Your task to perform on an android device: change keyboard looks Image 0: 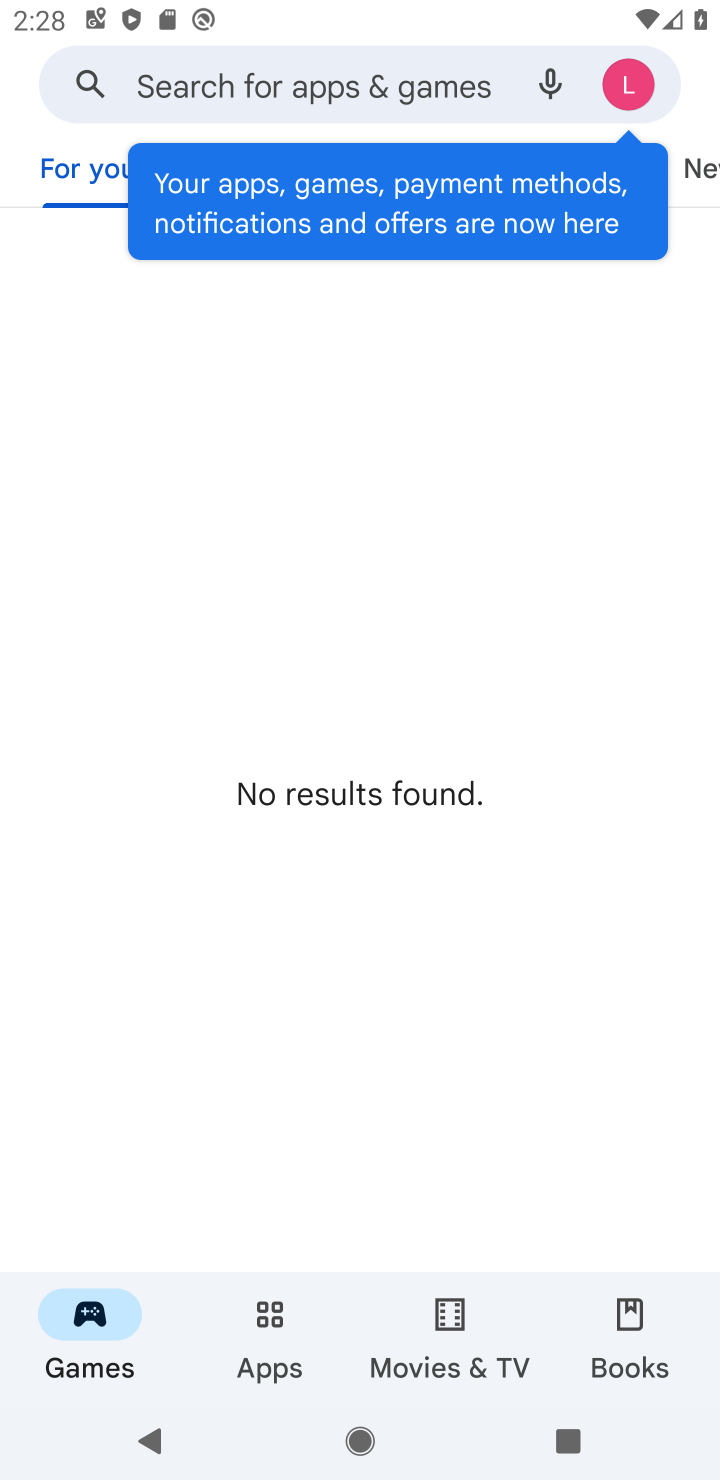
Step 0: press home button
Your task to perform on an android device: change keyboard looks Image 1: 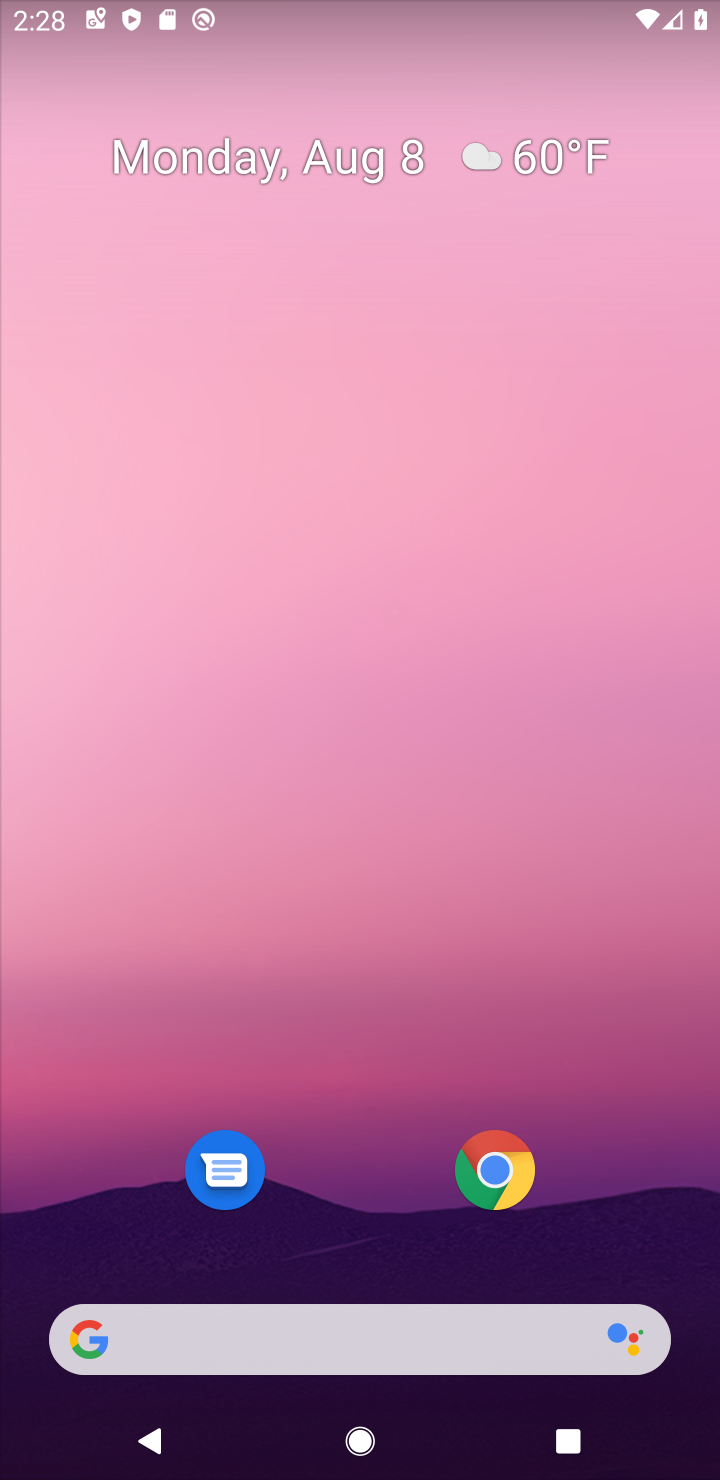
Step 1: drag from (374, 816) to (417, 476)
Your task to perform on an android device: change keyboard looks Image 2: 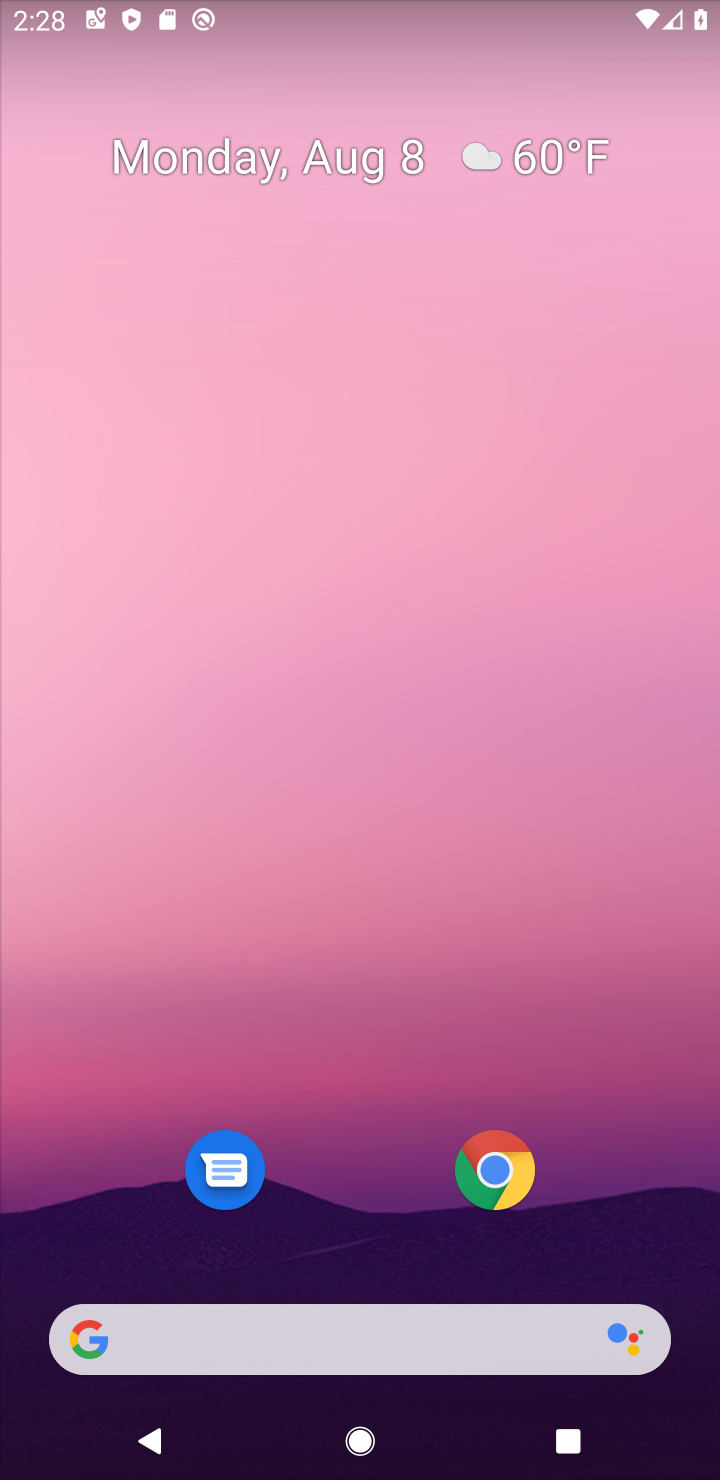
Step 2: drag from (357, 1003) to (382, 481)
Your task to perform on an android device: change keyboard looks Image 3: 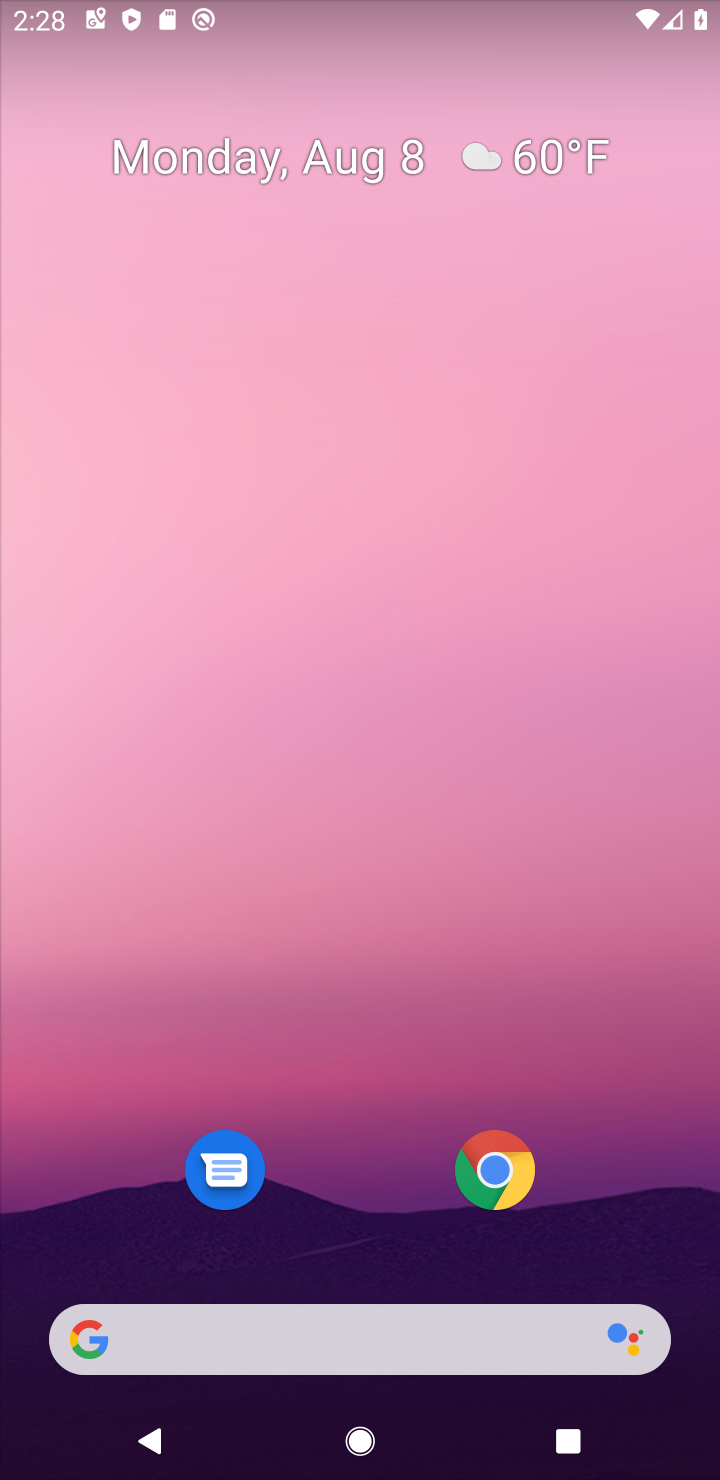
Step 3: drag from (348, 942) to (407, 182)
Your task to perform on an android device: change keyboard looks Image 4: 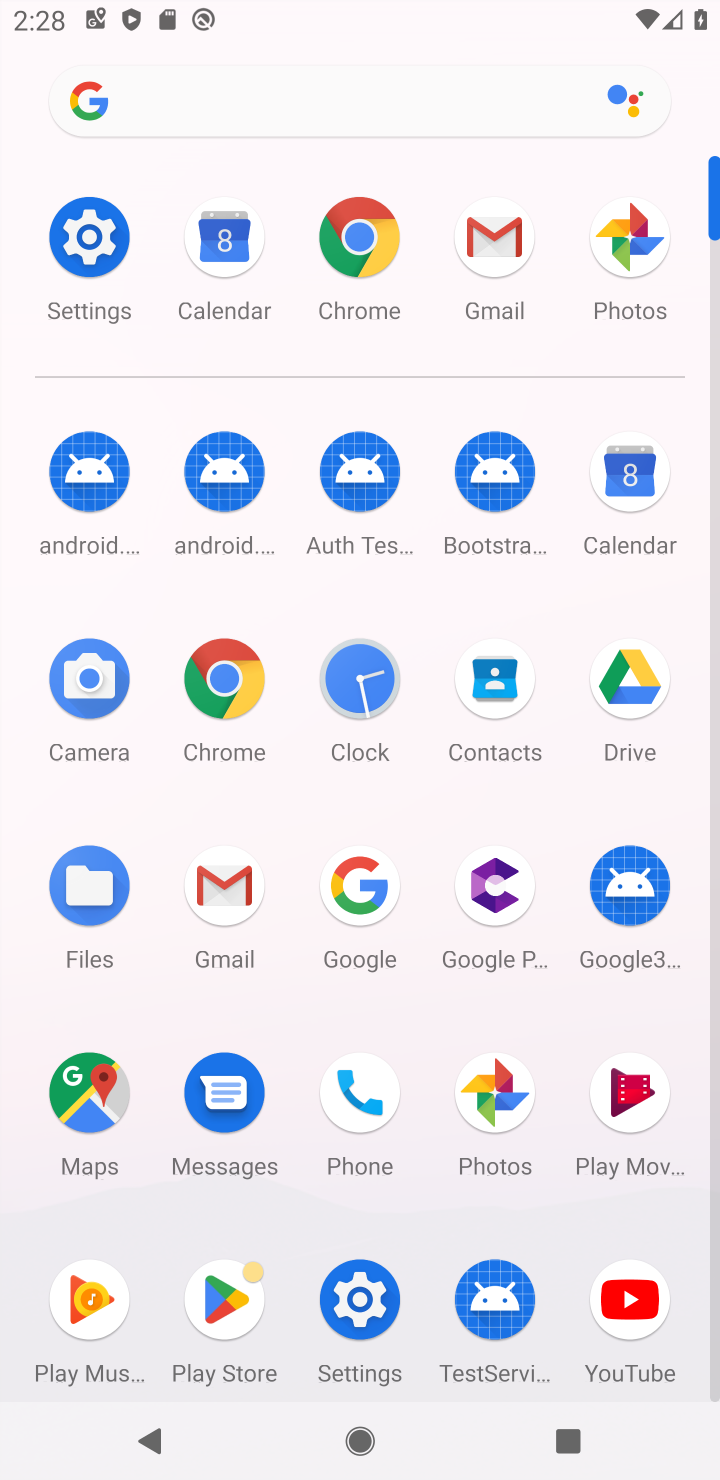
Step 4: click (100, 255)
Your task to perform on an android device: change keyboard looks Image 5: 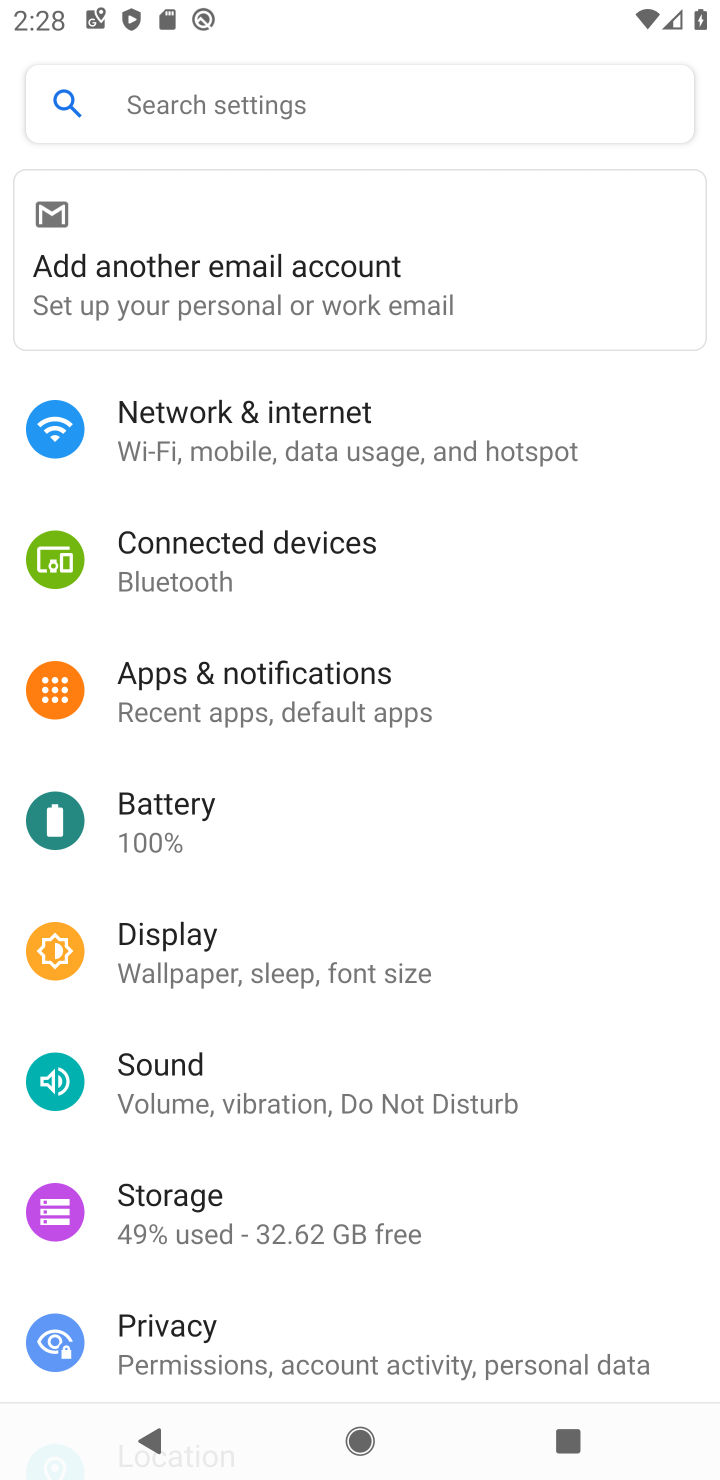
Step 5: drag from (371, 1110) to (434, 421)
Your task to perform on an android device: change keyboard looks Image 6: 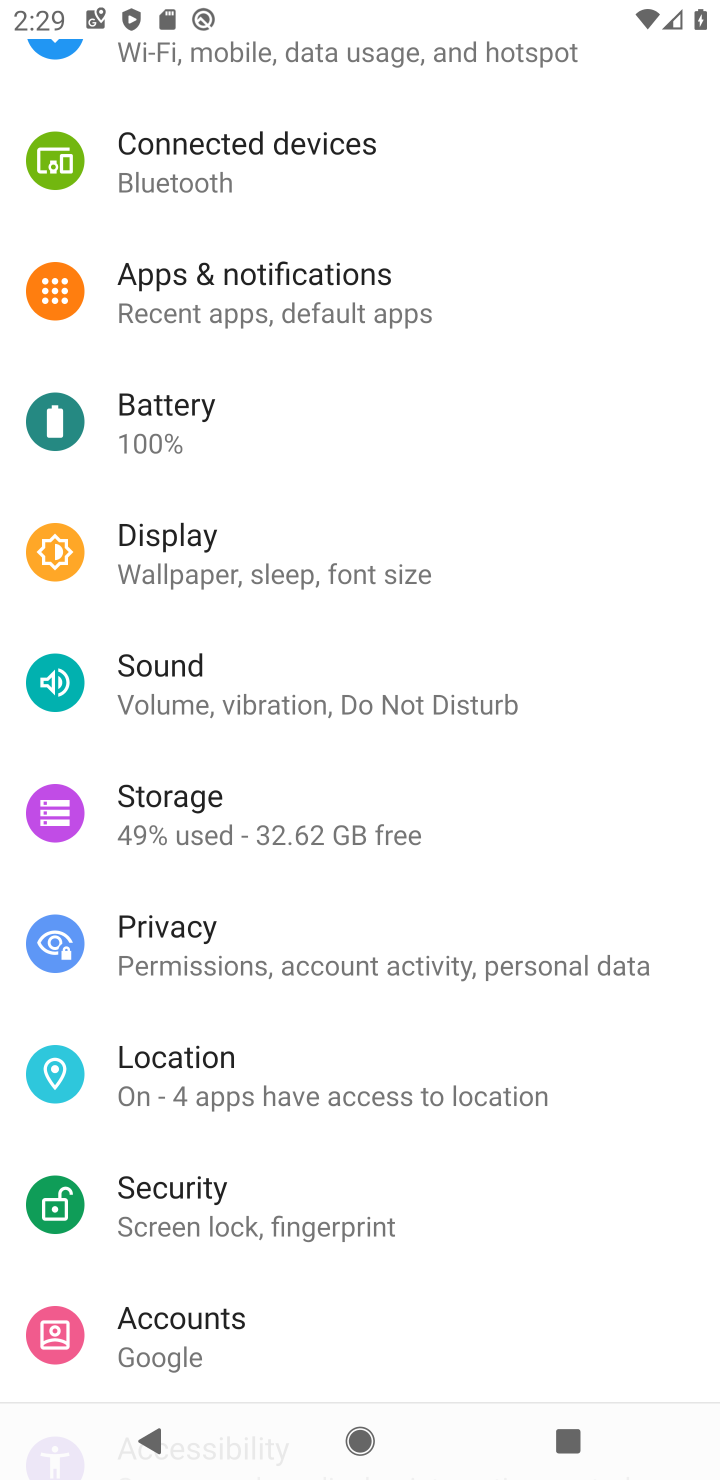
Step 6: drag from (323, 1254) to (405, 750)
Your task to perform on an android device: change keyboard looks Image 7: 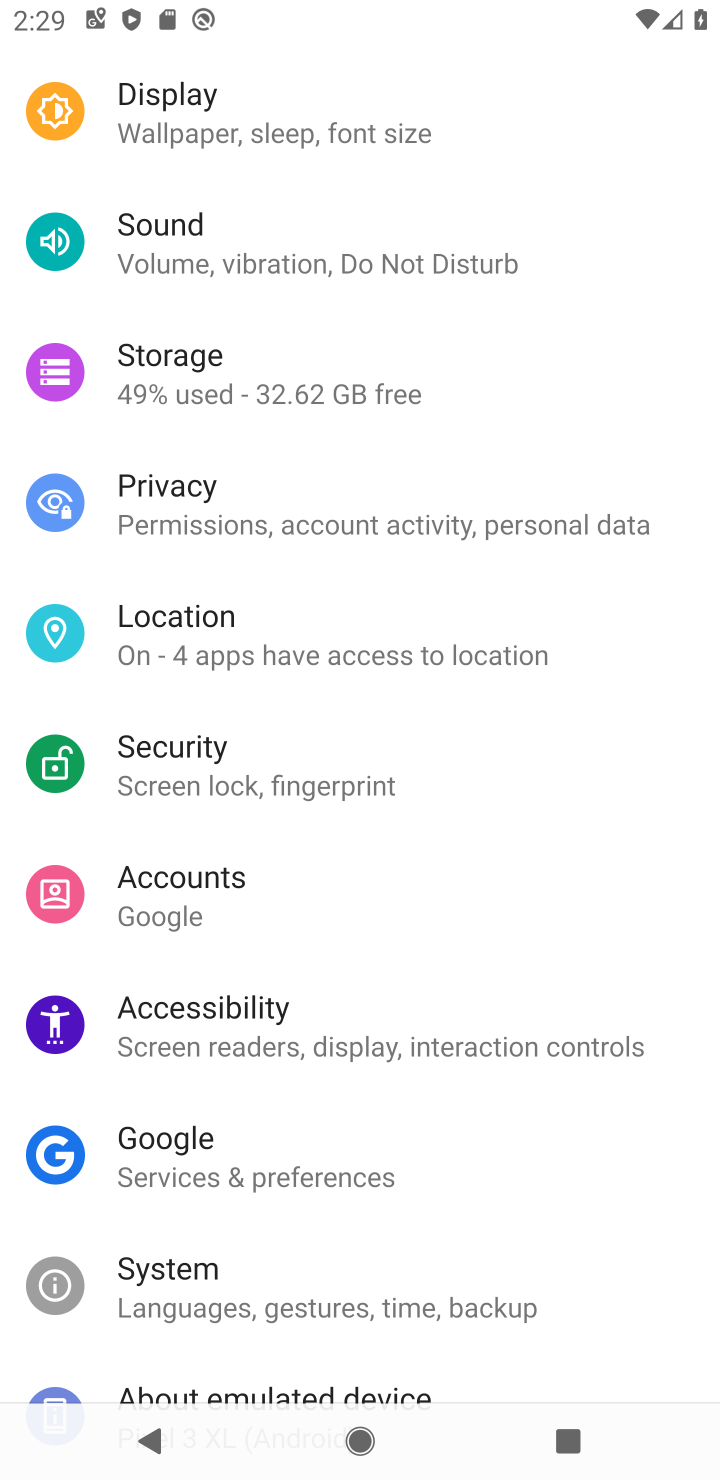
Step 7: click (329, 1300)
Your task to perform on an android device: change keyboard looks Image 8: 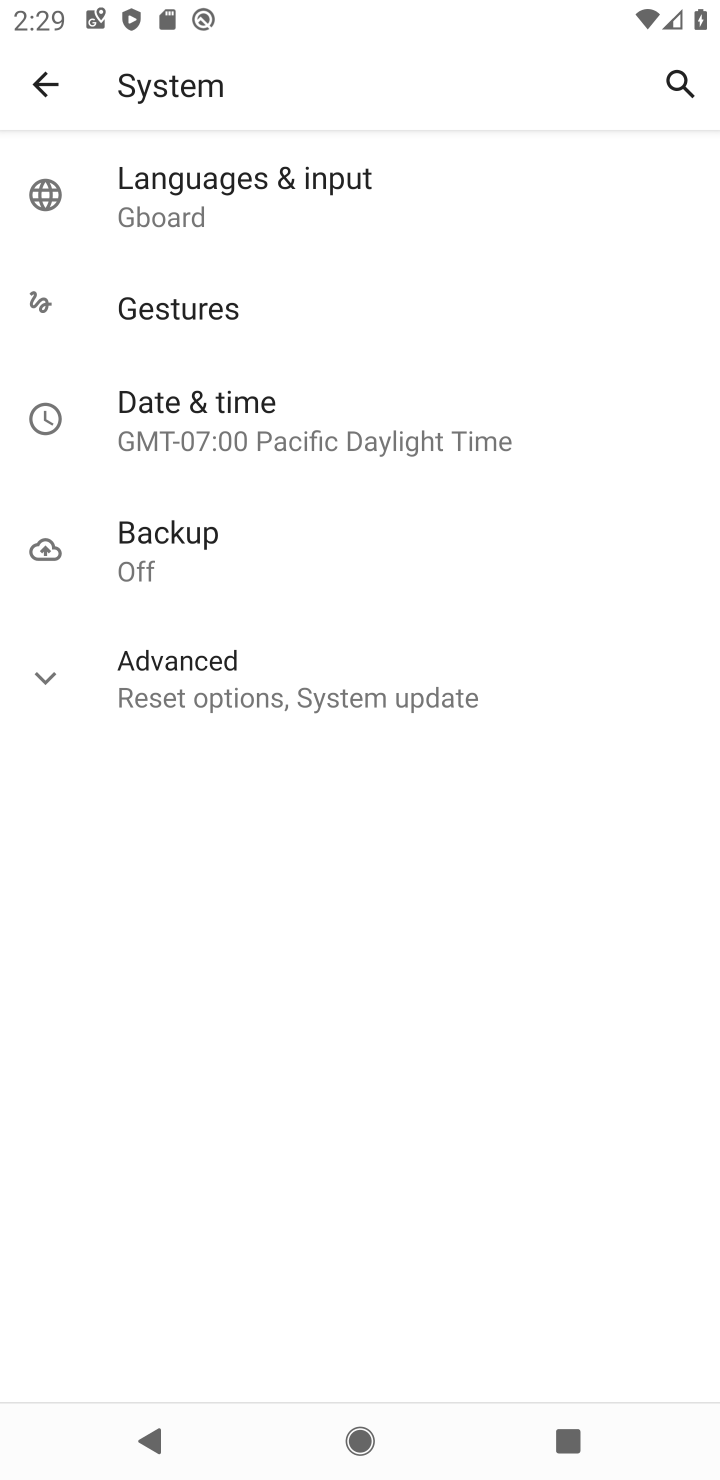
Step 8: click (208, 211)
Your task to perform on an android device: change keyboard looks Image 9: 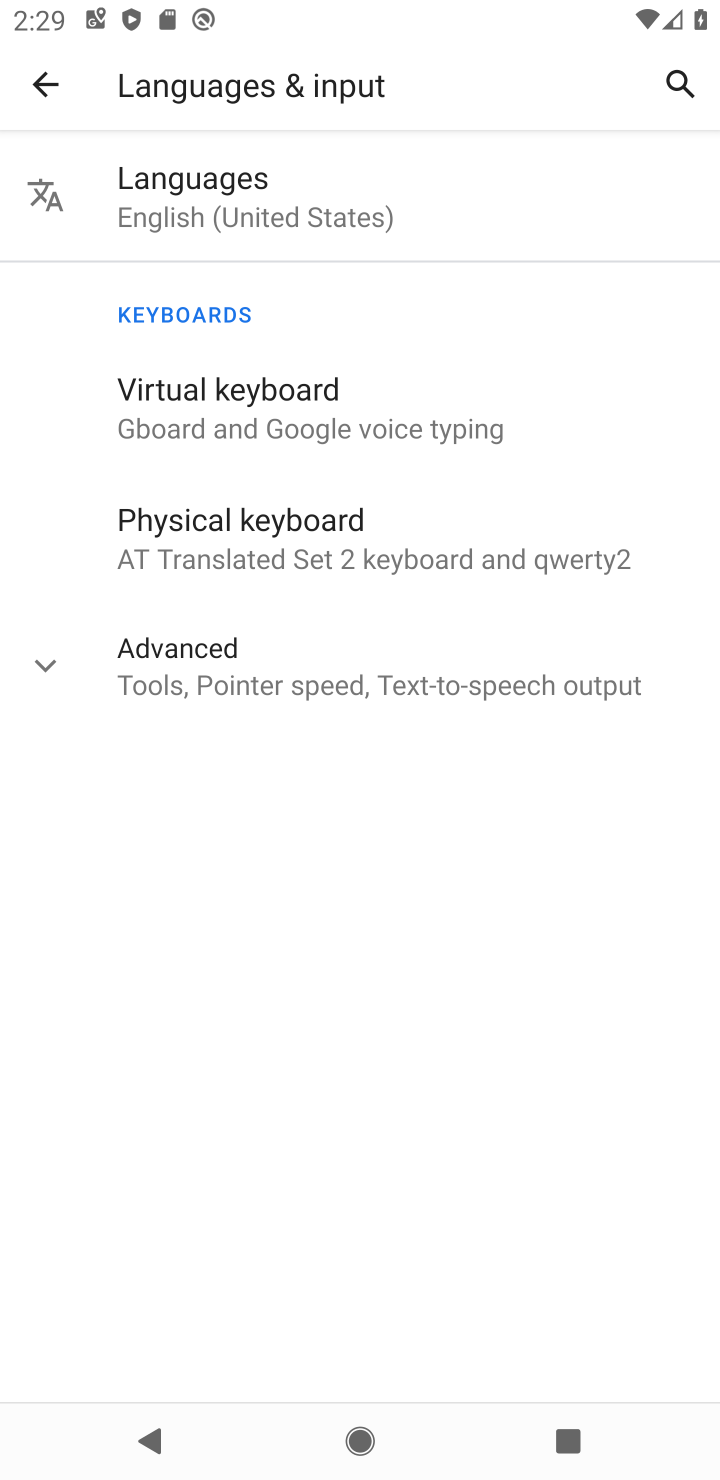
Step 9: click (311, 404)
Your task to perform on an android device: change keyboard looks Image 10: 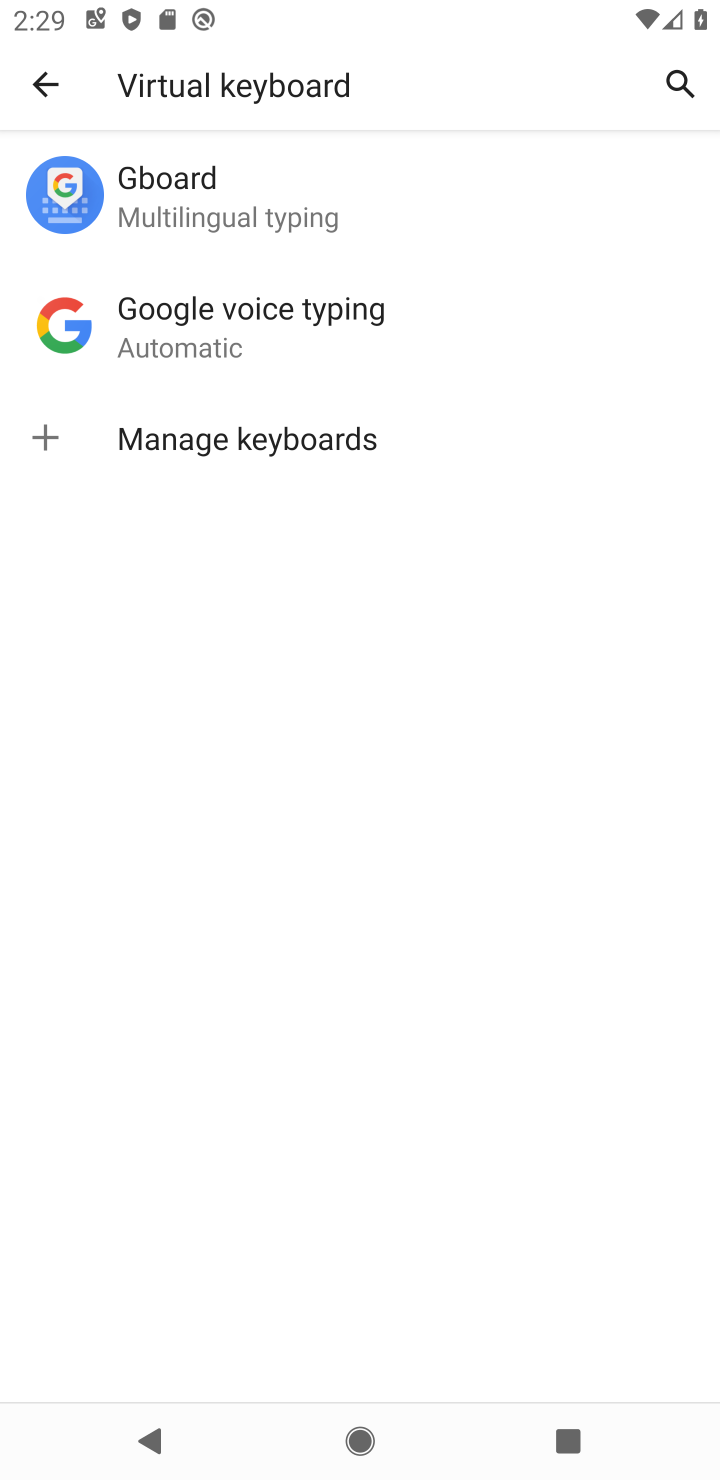
Step 10: click (251, 236)
Your task to perform on an android device: change keyboard looks Image 11: 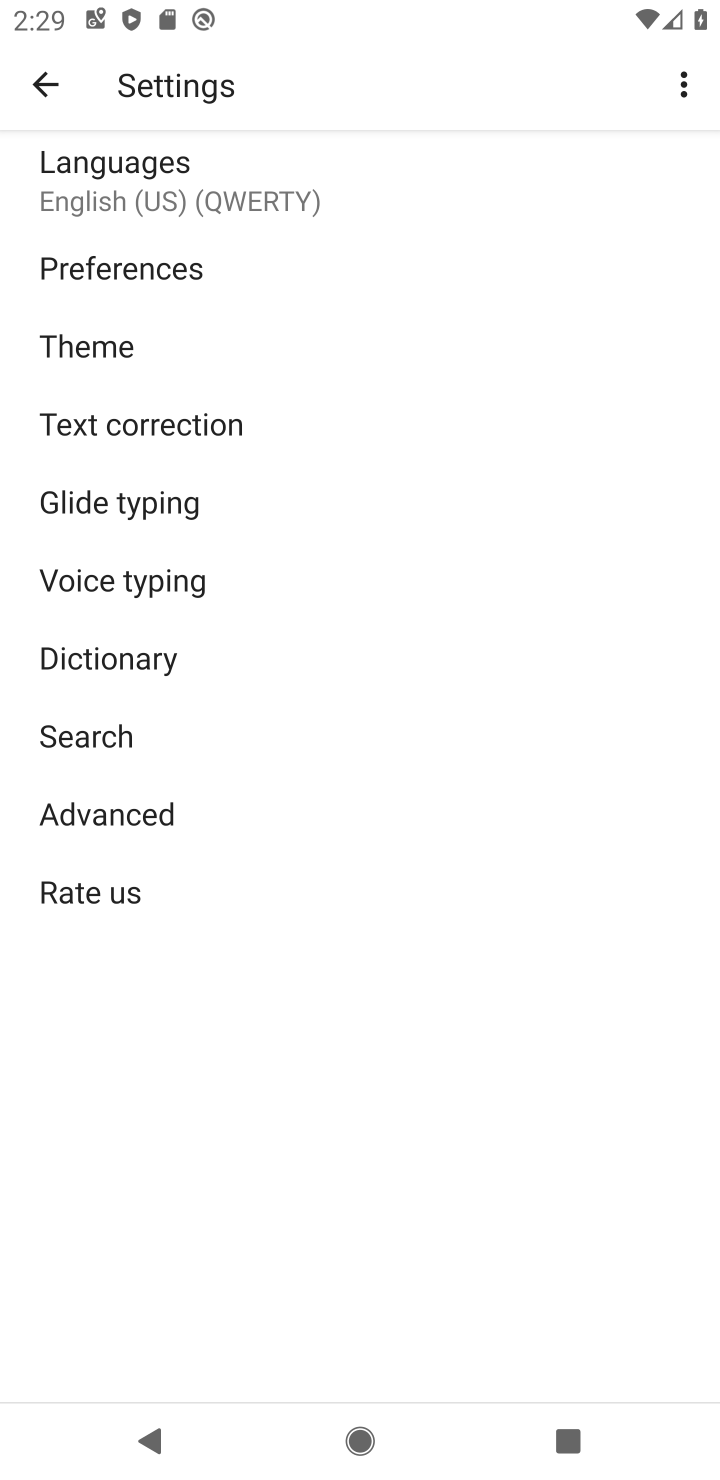
Step 11: click (187, 363)
Your task to perform on an android device: change keyboard looks Image 12: 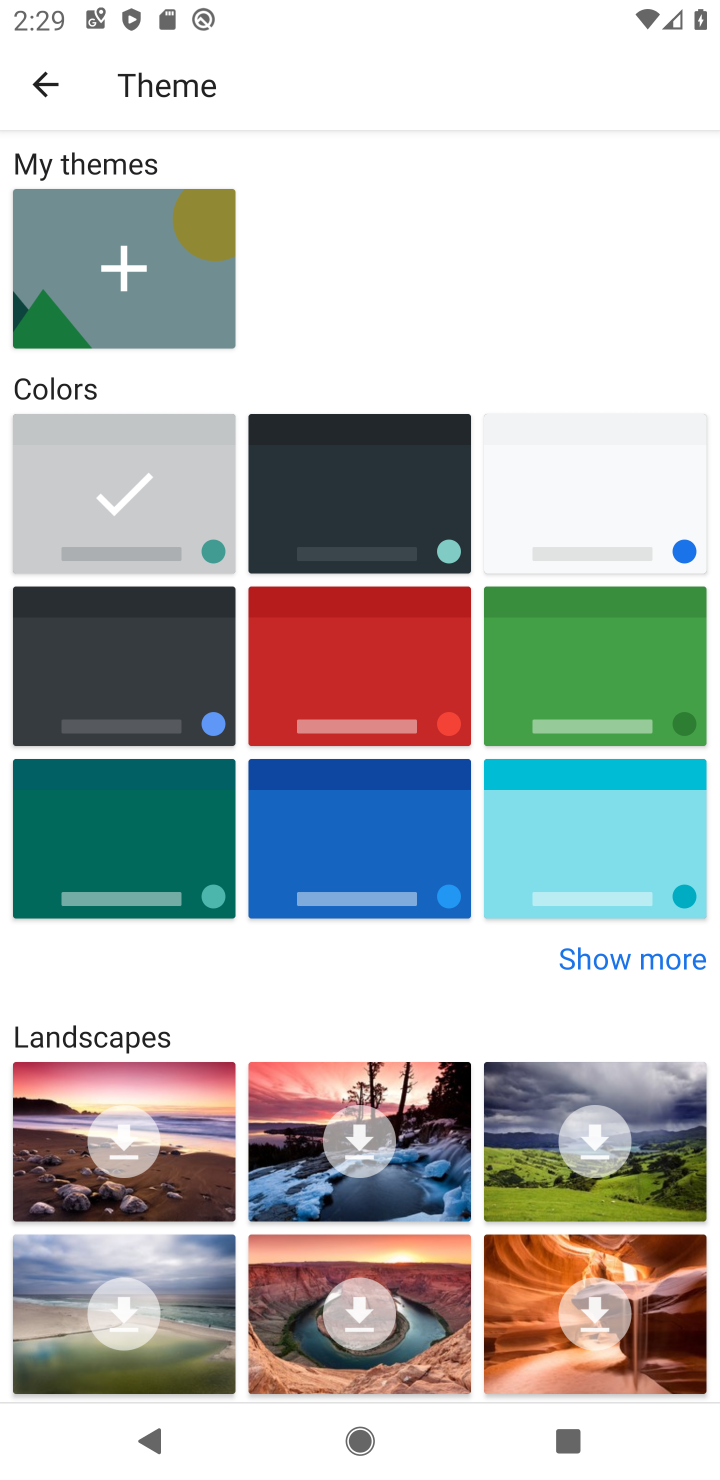
Step 12: click (575, 542)
Your task to perform on an android device: change keyboard looks Image 13: 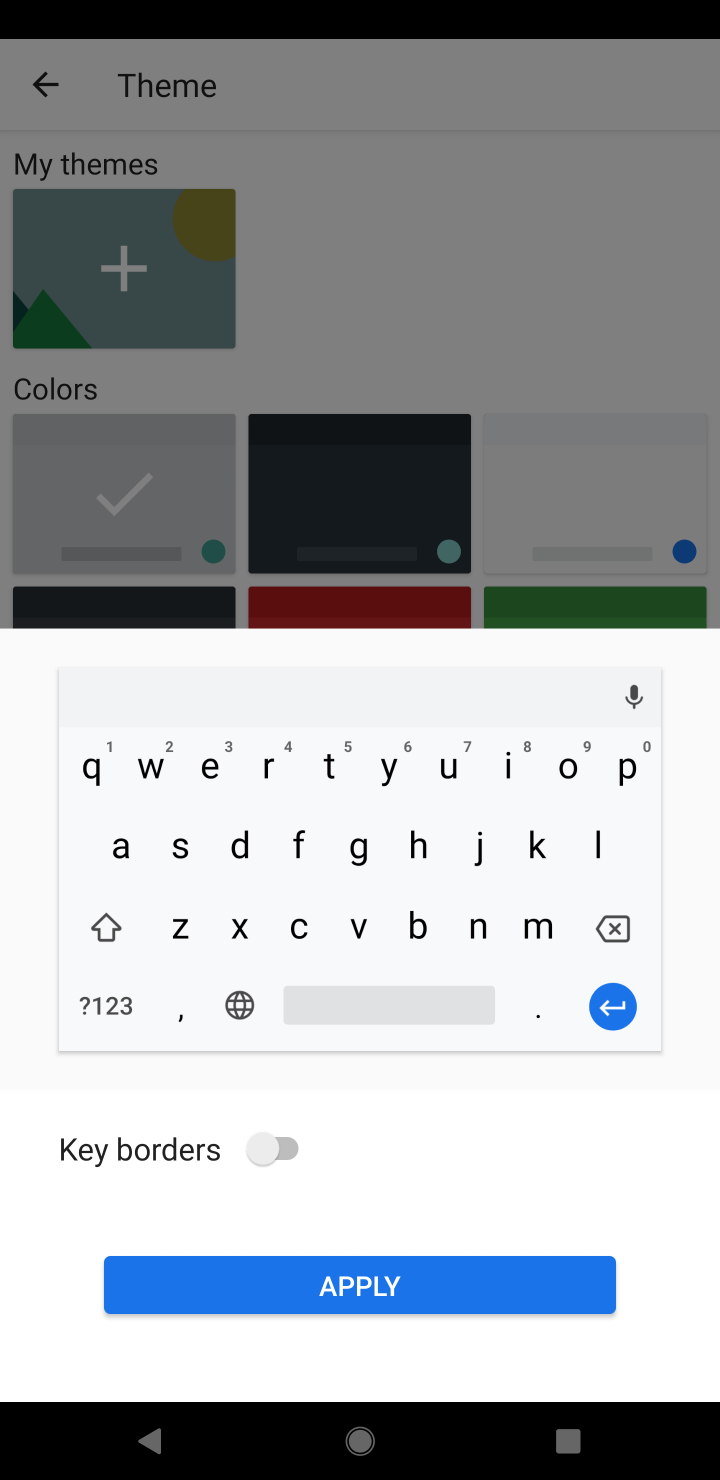
Step 13: click (347, 1283)
Your task to perform on an android device: change keyboard looks Image 14: 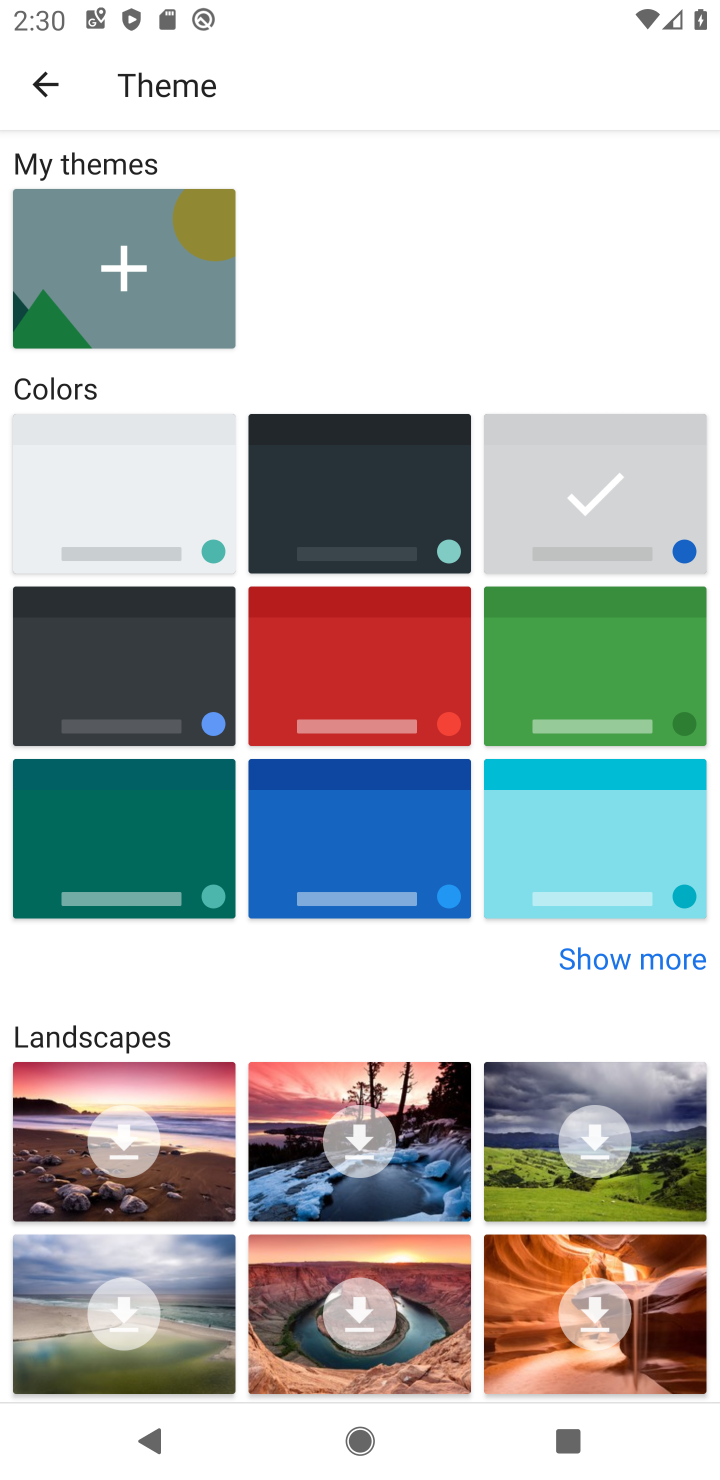
Step 14: task complete